Your task to perform on an android device: Open Google Chrome and open the bookmarks view Image 0: 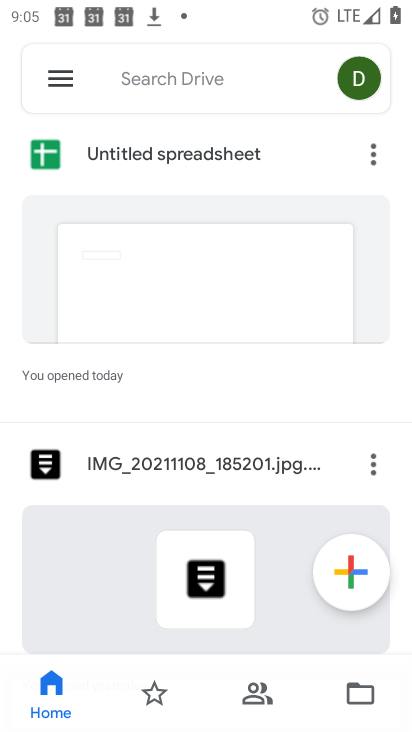
Step 0: press home button
Your task to perform on an android device: Open Google Chrome and open the bookmarks view Image 1: 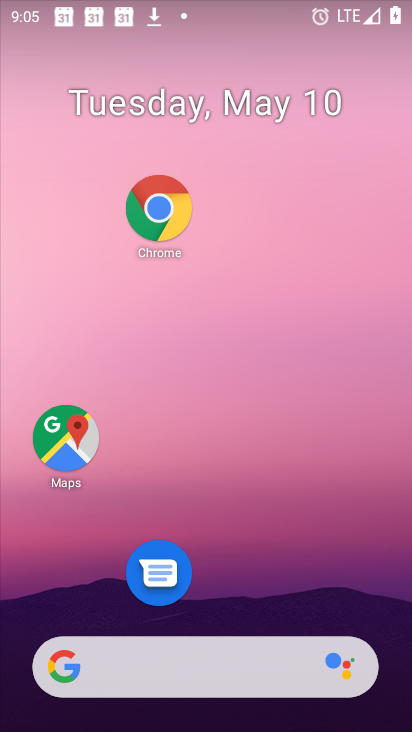
Step 1: drag from (326, 710) to (346, 271)
Your task to perform on an android device: Open Google Chrome and open the bookmarks view Image 2: 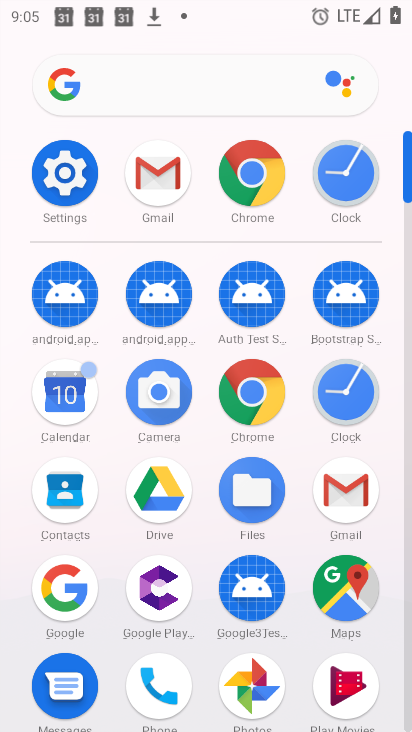
Step 2: click (244, 393)
Your task to perform on an android device: Open Google Chrome and open the bookmarks view Image 3: 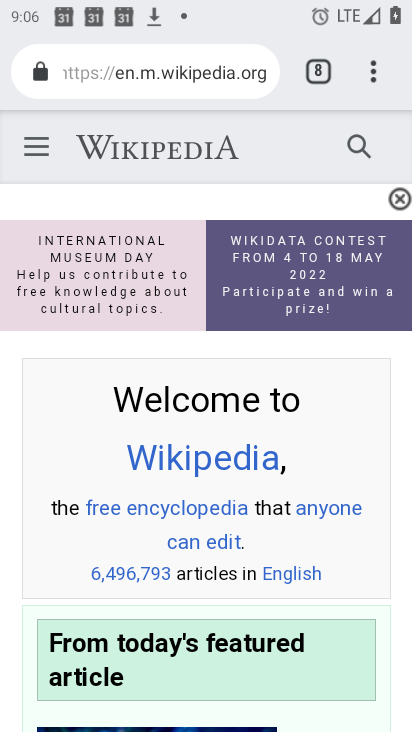
Step 3: click (371, 62)
Your task to perform on an android device: Open Google Chrome and open the bookmarks view Image 4: 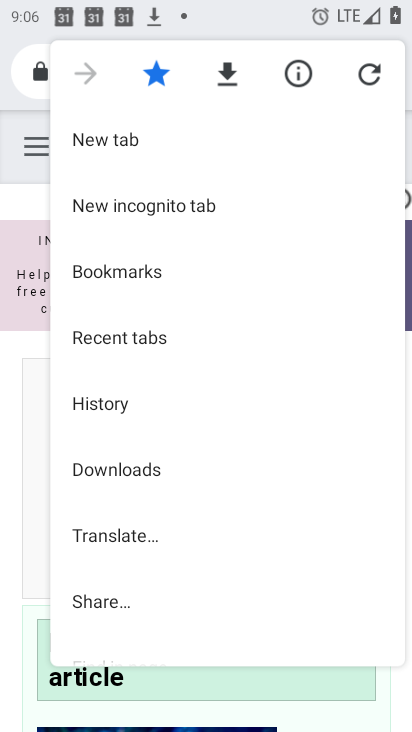
Step 4: click (140, 273)
Your task to perform on an android device: Open Google Chrome and open the bookmarks view Image 5: 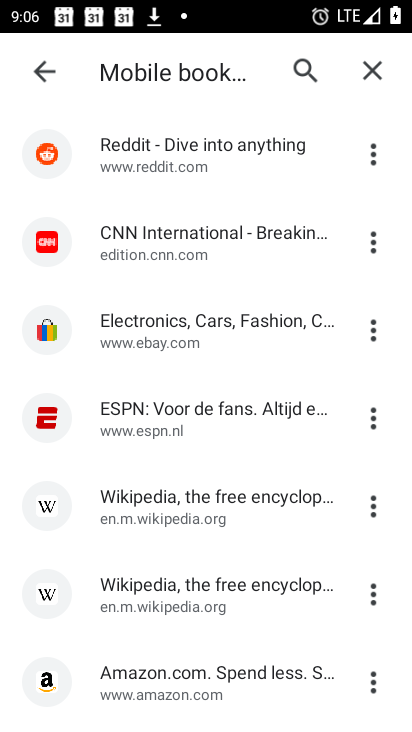
Step 5: task complete